Your task to perform on an android device: Show me productivity apps on the Play Store Image 0: 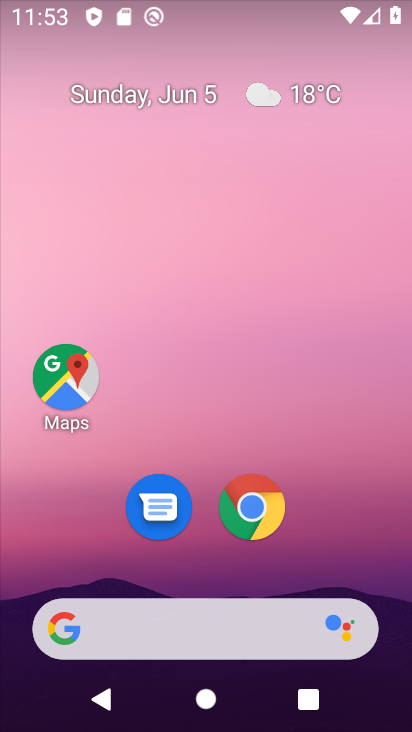
Step 0: drag from (242, 563) to (248, 17)
Your task to perform on an android device: Show me productivity apps on the Play Store Image 1: 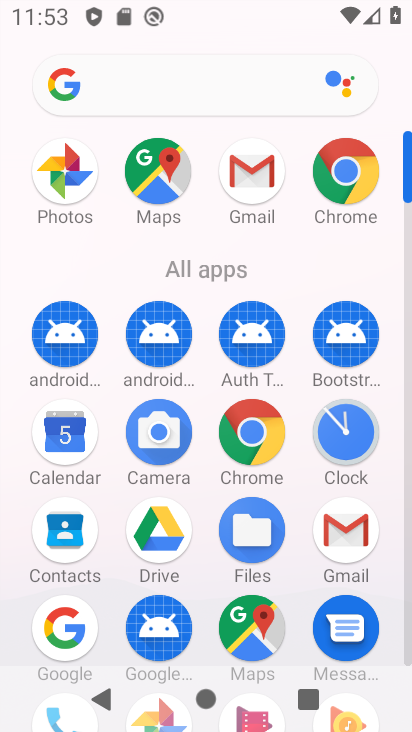
Step 1: drag from (222, 557) to (232, 322)
Your task to perform on an android device: Show me productivity apps on the Play Store Image 2: 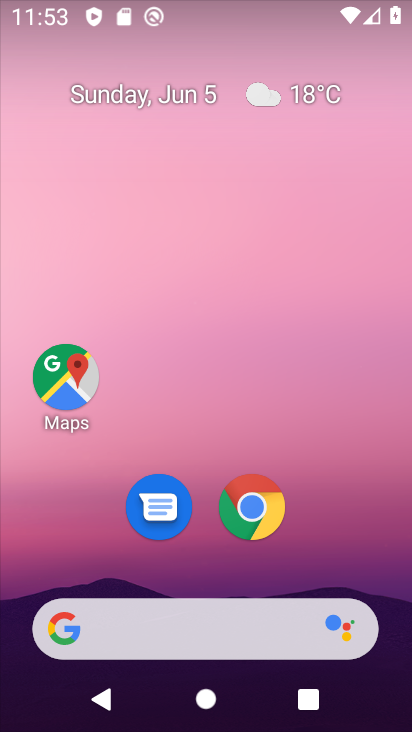
Step 2: drag from (192, 575) to (264, 2)
Your task to perform on an android device: Show me productivity apps on the Play Store Image 3: 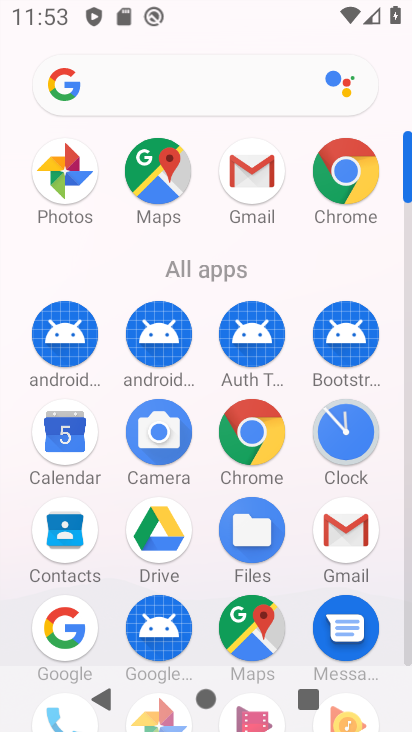
Step 3: drag from (202, 589) to (209, 163)
Your task to perform on an android device: Show me productivity apps on the Play Store Image 4: 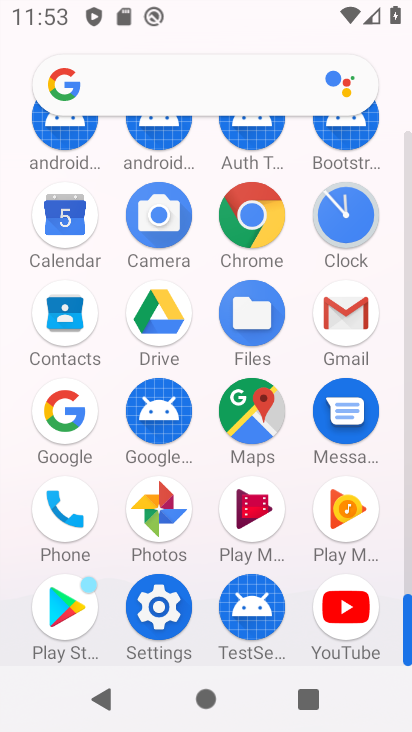
Step 4: click (66, 613)
Your task to perform on an android device: Show me productivity apps on the Play Store Image 5: 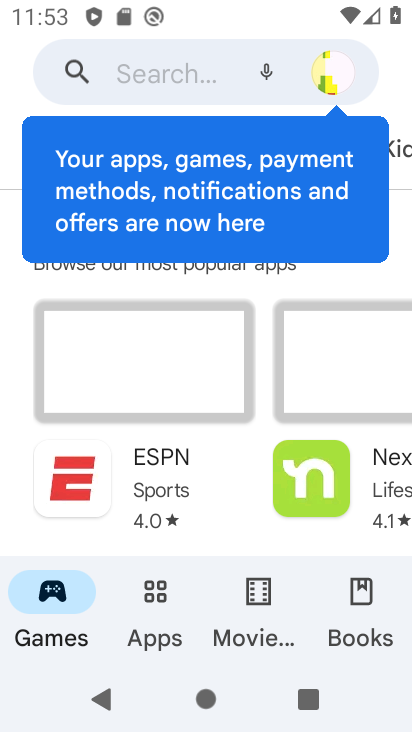
Step 5: click (163, 617)
Your task to perform on an android device: Show me productivity apps on the Play Store Image 6: 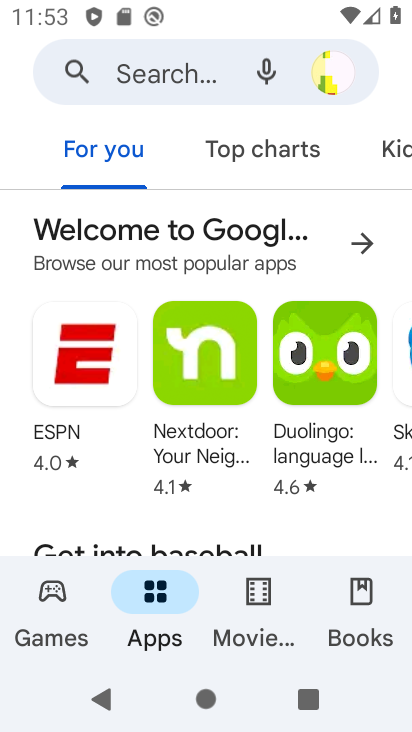
Step 6: drag from (392, 151) to (40, 168)
Your task to perform on an android device: Show me productivity apps on the Play Store Image 7: 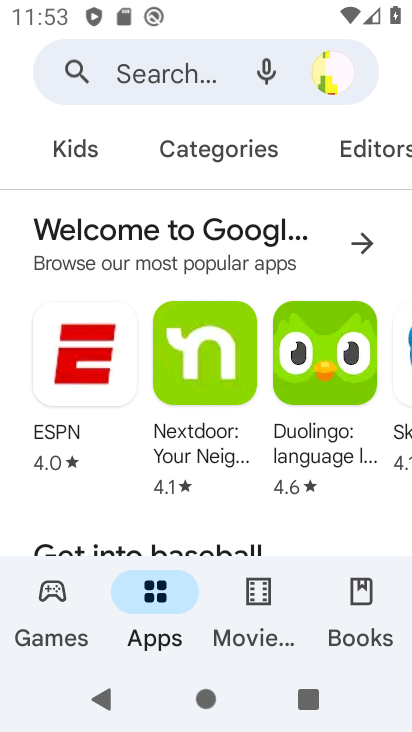
Step 7: click (220, 157)
Your task to perform on an android device: Show me productivity apps on the Play Store Image 8: 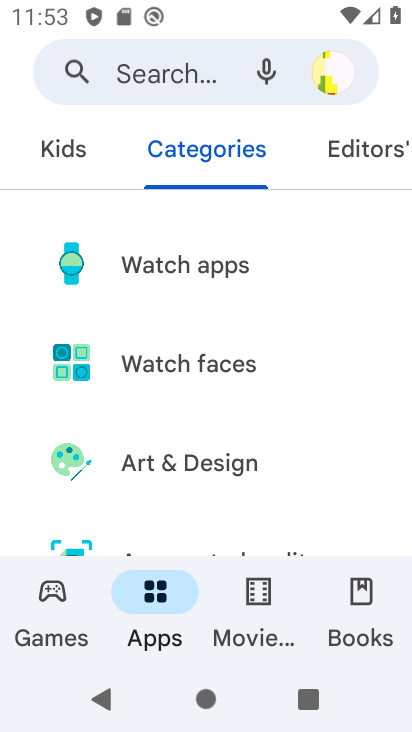
Step 8: drag from (217, 498) to (253, 136)
Your task to perform on an android device: Show me productivity apps on the Play Store Image 9: 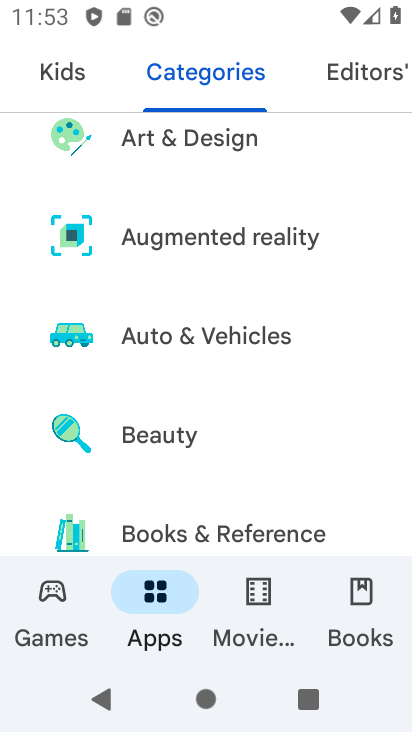
Step 9: drag from (253, 479) to (298, 102)
Your task to perform on an android device: Show me productivity apps on the Play Store Image 10: 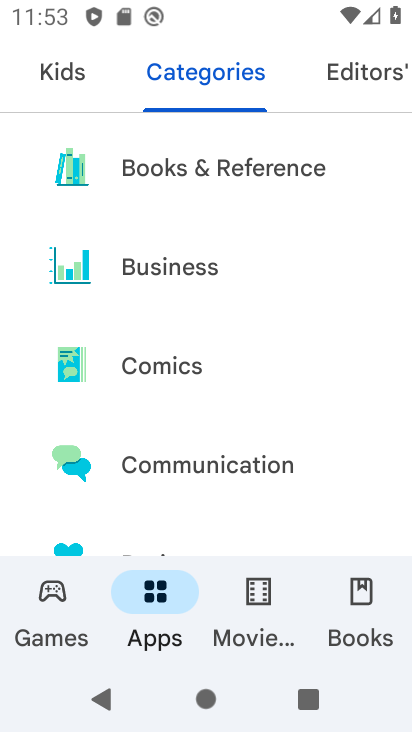
Step 10: drag from (284, 513) to (301, 84)
Your task to perform on an android device: Show me productivity apps on the Play Store Image 11: 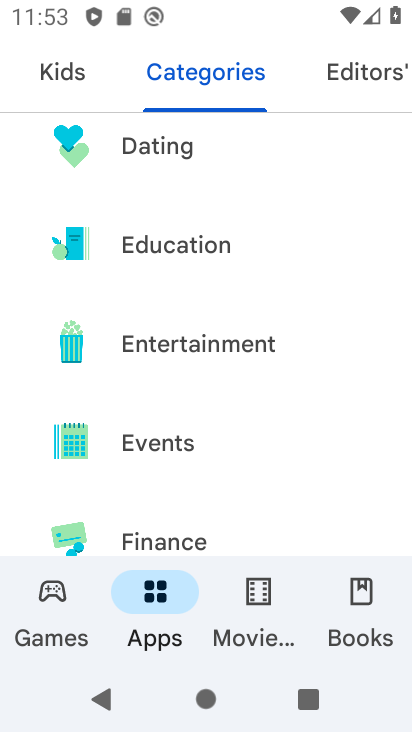
Step 11: drag from (264, 486) to (280, 127)
Your task to perform on an android device: Show me productivity apps on the Play Store Image 12: 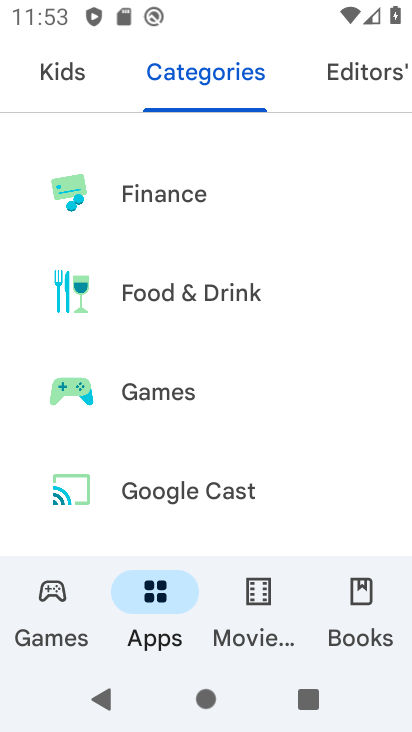
Step 12: drag from (238, 490) to (269, 0)
Your task to perform on an android device: Show me productivity apps on the Play Store Image 13: 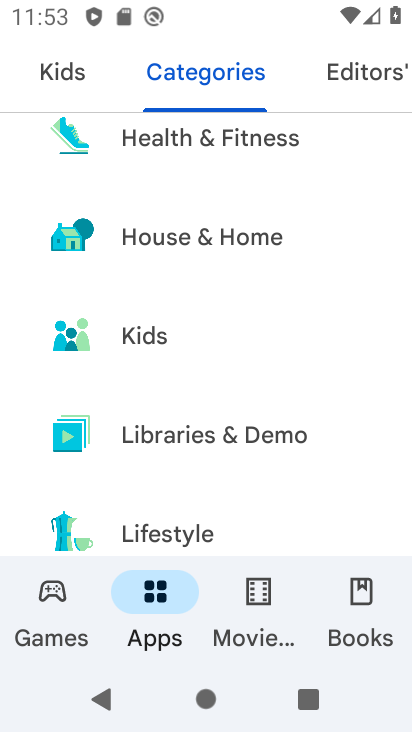
Step 13: drag from (246, 484) to (280, 166)
Your task to perform on an android device: Show me productivity apps on the Play Store Image 14: 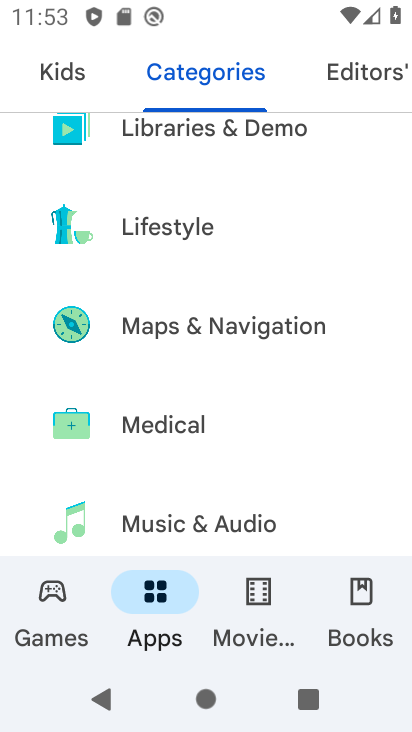
Step 14: drag from (225, 465) to (277, 47)
Your task to perform on an android device: Show me productivity apps on the Play Store Image 15: 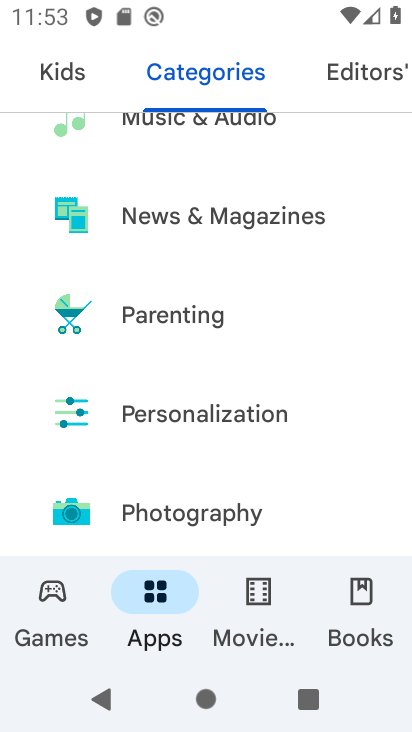
Step 15: drag from (208, 493) to (263, 74)
Your task to perform on an android device: Show me productivity apps on the Play Store Image 16: 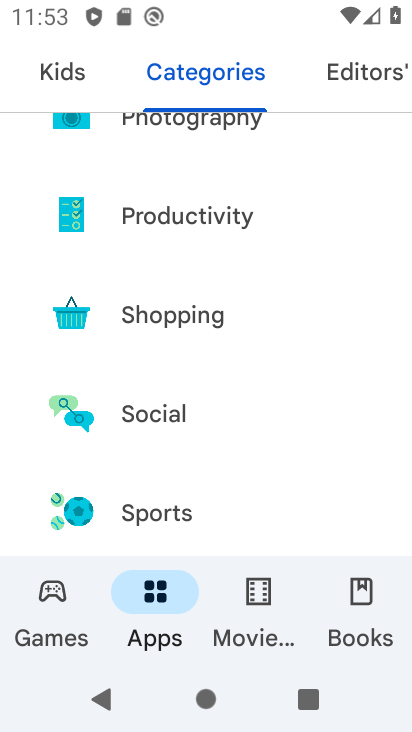
Step 16: click (202, 230)
Your task to perform on an android device: Show me productivity apps on the Play Store Image 17: 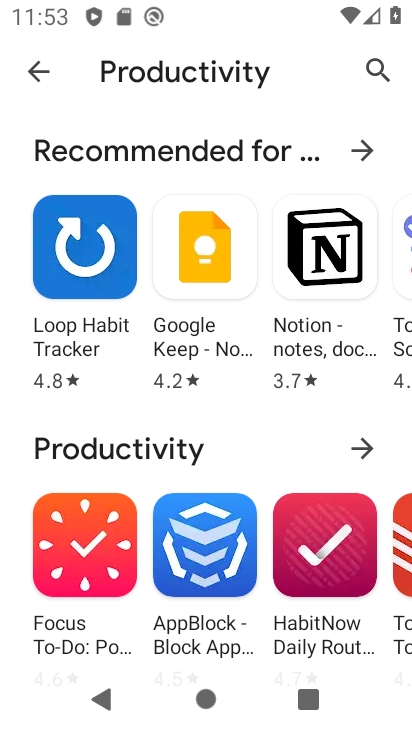
Step 17: task complete